Your task to perform on an android device: turn off notifications settings in the gmail app Image 0: 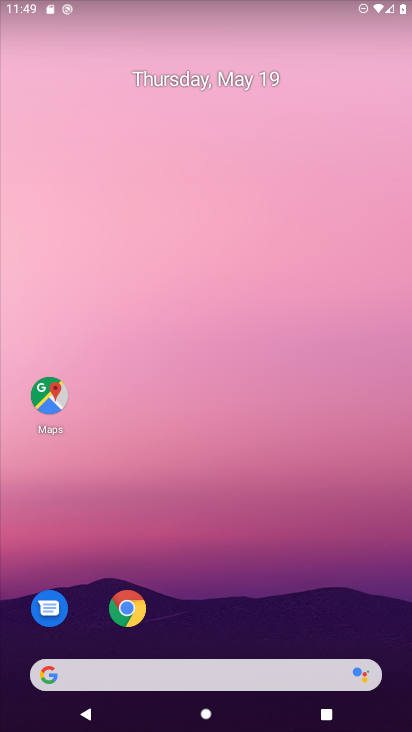
Step 0: press home button
Your task to perform on an android device: turn off notifications settings in the gmail app Image 1: 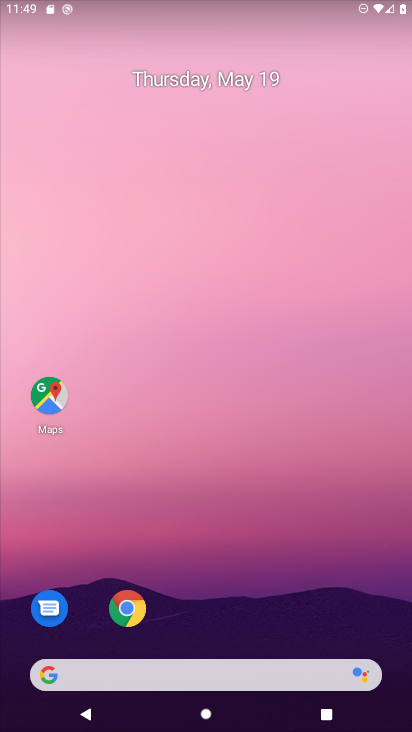
Step 1: drag from (275, 619) to (348, 62)
Your task to perform on an android device: turn off notifications settings in the gmail app Image 2: 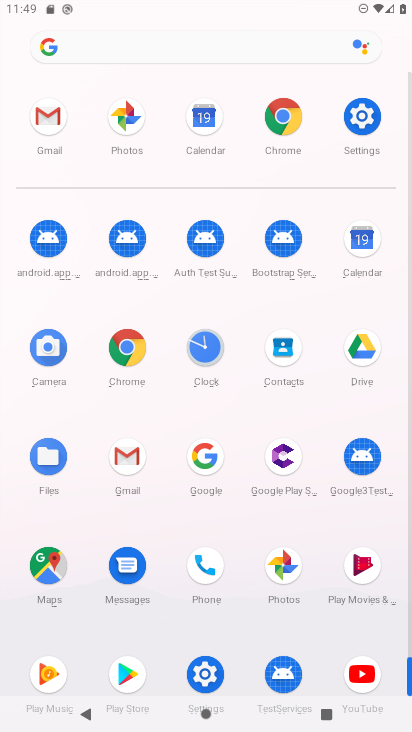
Step 2: click (47, 108)
Your task to perform on an android device: turn off notifications settings in the gmail app Image 3: 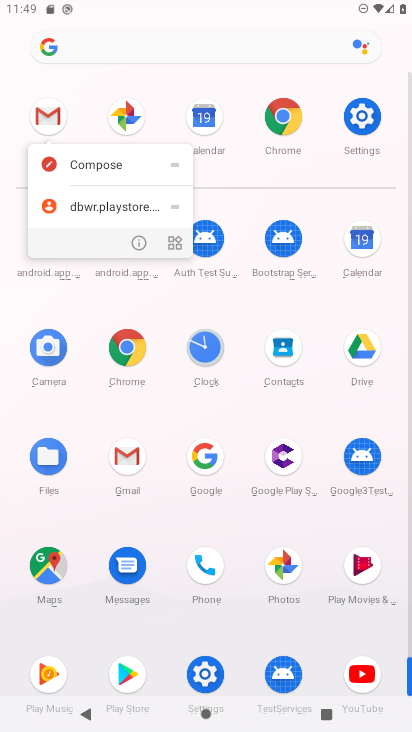
Step 3: click (144, 242)
Your task to perform on an android device: turn off notifications settings in the gmail app Image 4: 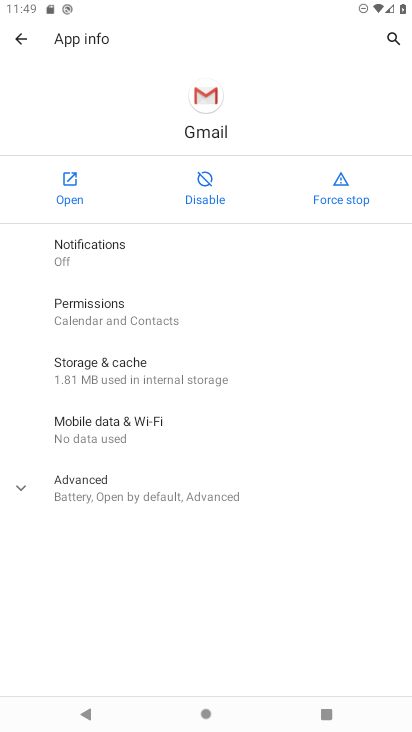
Step 4: task complete